Your task to perform on an android device: turn on sleep mode Image 0: 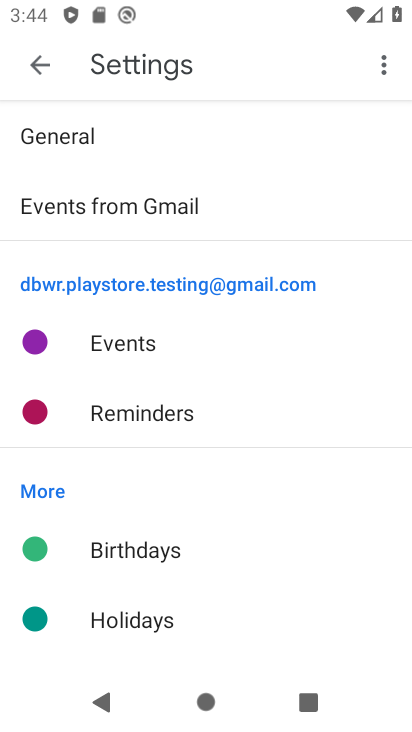
Step 0: press home button
Your task to perform on an android device: turn on sleep mode Image 1: 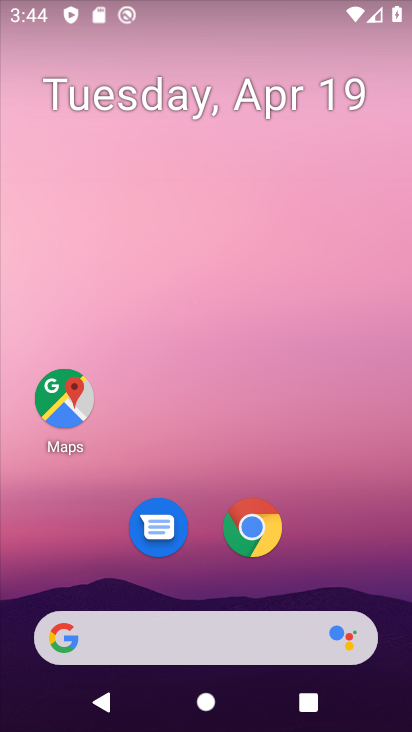
Step 1: drag from (354, 565) to (294, 247)
Your task to perform on an android device: turn on sleep mode Image 2: 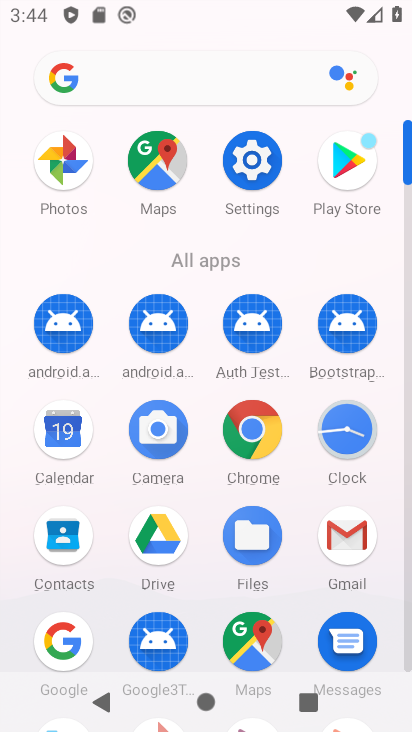
Step 2: click (405, 646)
Your task to perform on an android device: turn on sleep mode Image 3: 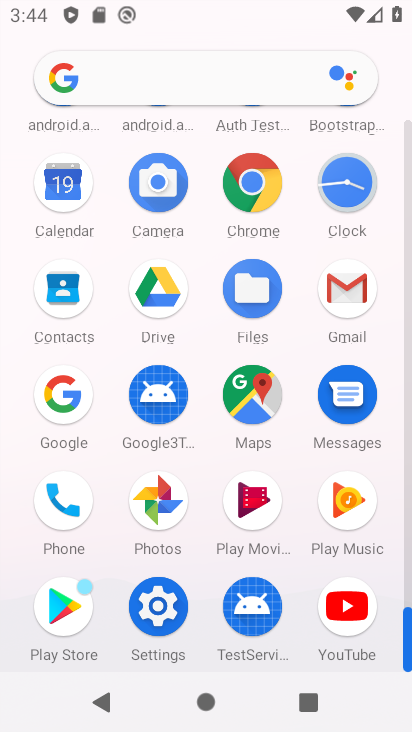
Step 3: click (158, 607)
Your task to perform on an android device: turn on sleep mode Image 4: 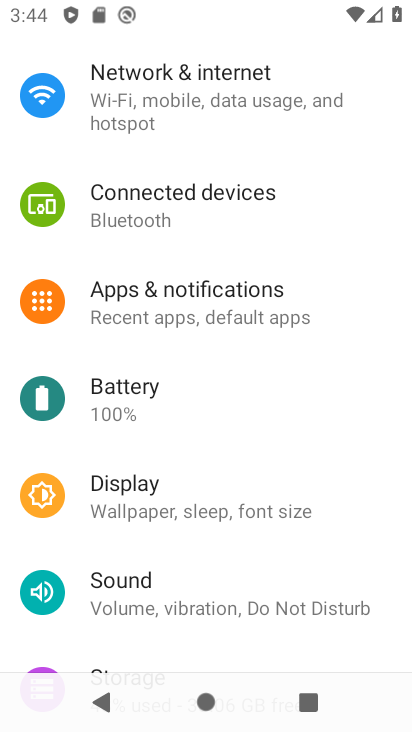
Step 4: click (150, 493)
Your task to perform on an android device: turn on sleep mode Image 5: 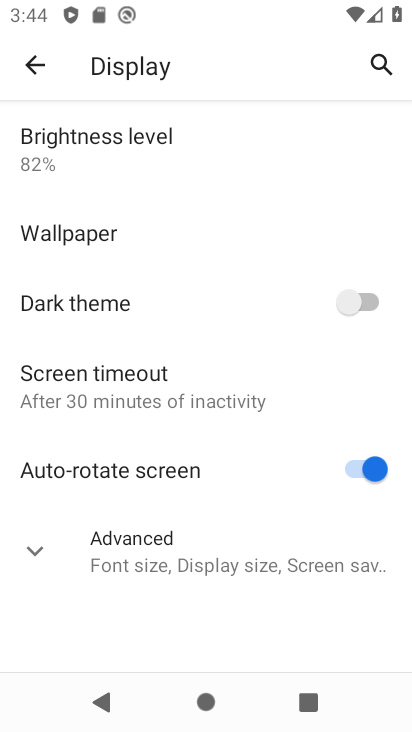
Step 5: click (49, 551)
Your task to perform on an android device: turn on sleep mode Image 6: 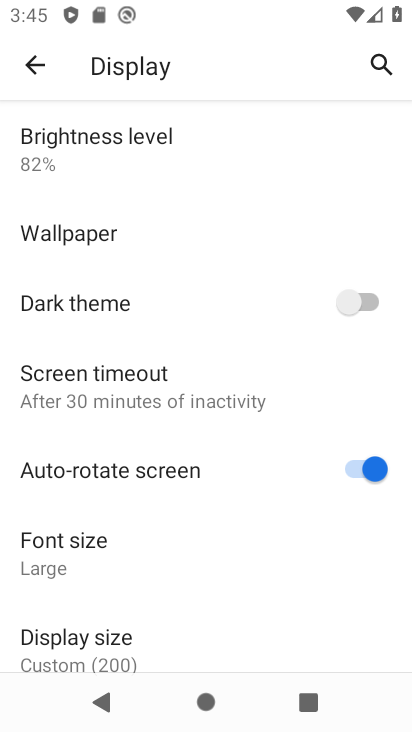
Step 6: task complete